Your task to perform on an android device: Open Google Chrome and open the bookmarks view Image 0: 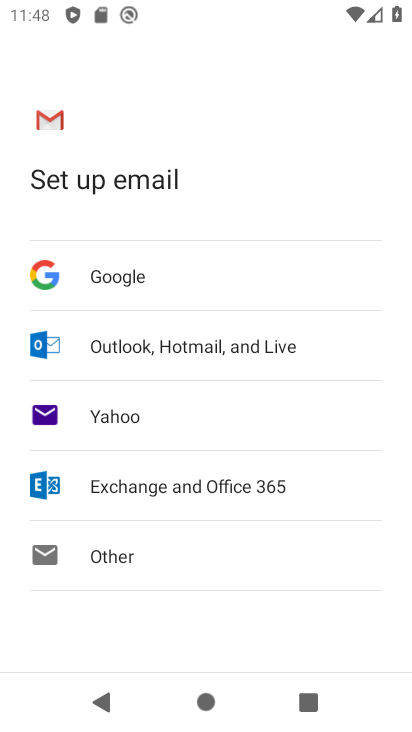
Step 0: press home button
Your task to perform on an android device: Open Google Chrome and open the bookmarks view Image 1: 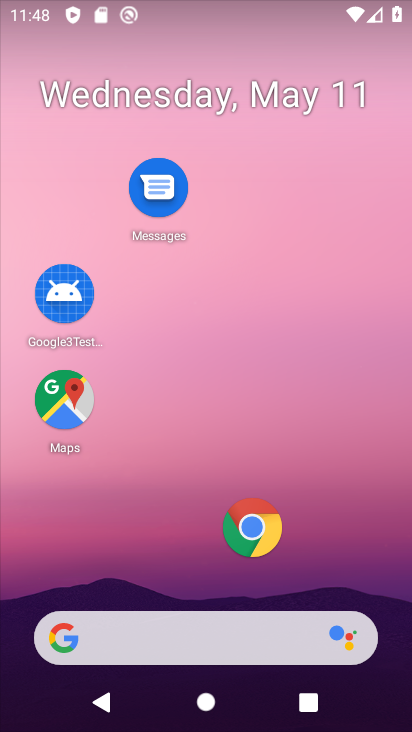
Step 1: click (237, 531)
Your task to perform on an android device: Open Google Chrome and open the bookmarks view Image 2: 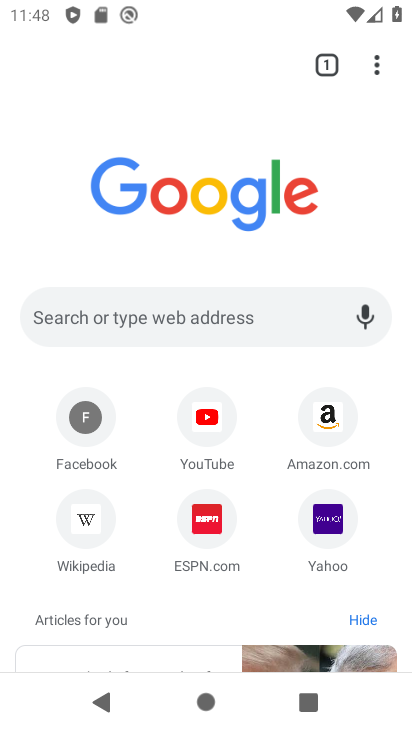
Step 2: click (373, 73)
Your task to perform on an android device: Open Google Chrome and open the bookmarks view Image 3: 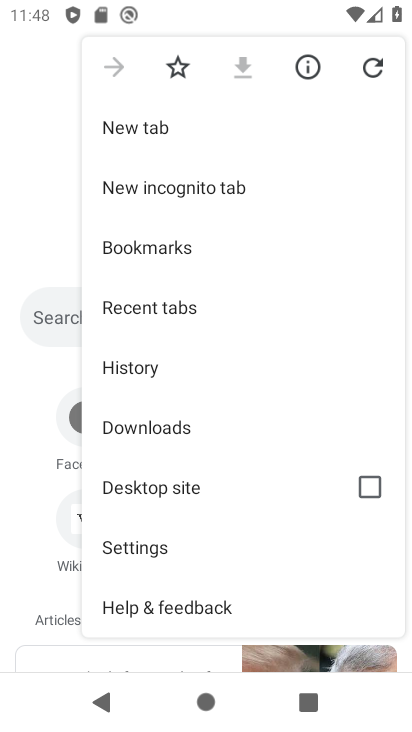
Step 3: click (192, 252)
Your task to perform on an android device: Open Google Chrome and open the bookmarks view Image 4: 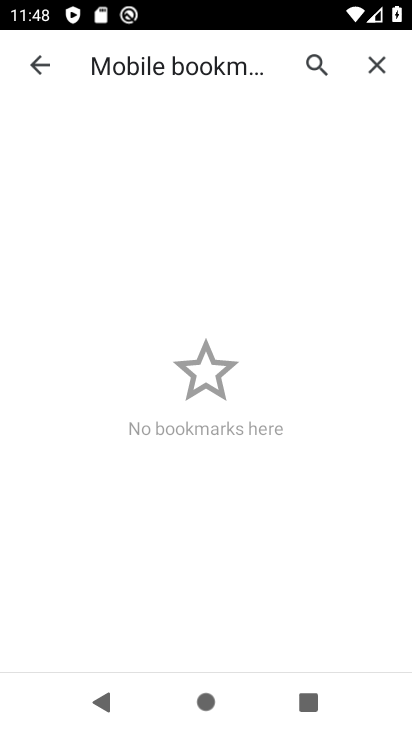
Step 4: task complete